Your task to perform on an android device: turn off airplane mode Image 0: 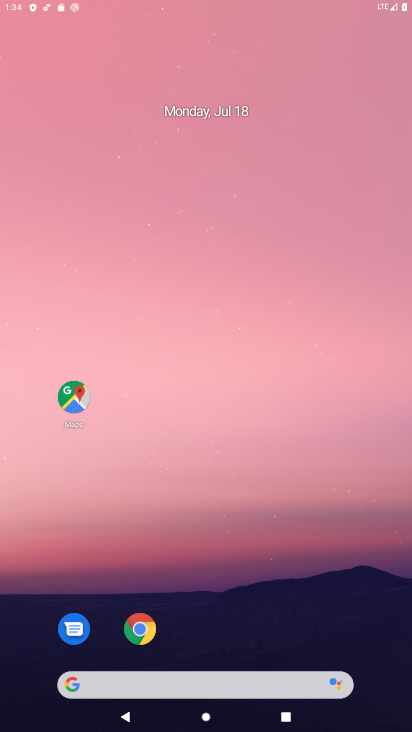
Step 0: press home button
Your task to perform on an android device: turn off airplane mode Image 1: 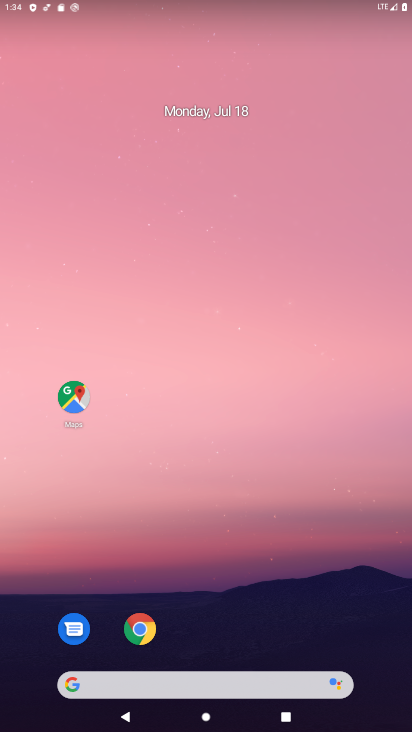
Step 1: task complete